Your task to perform on an android device: open the mobile data screen to see how much data has been used Image 0: 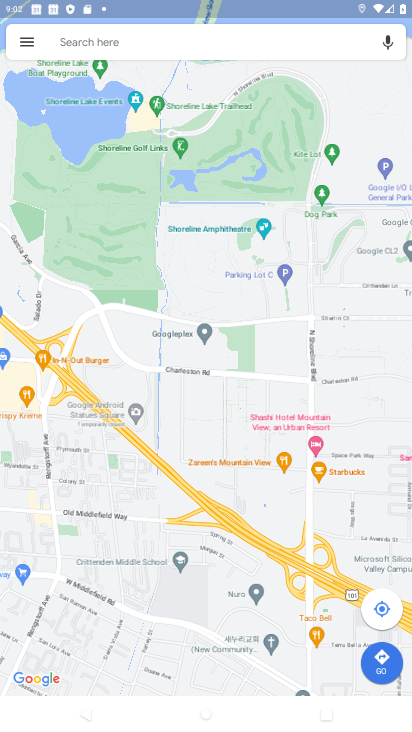
Step 0: press home button
Your task to perform on an android device: open the mobile data screen to see how much data has been used Image 1: 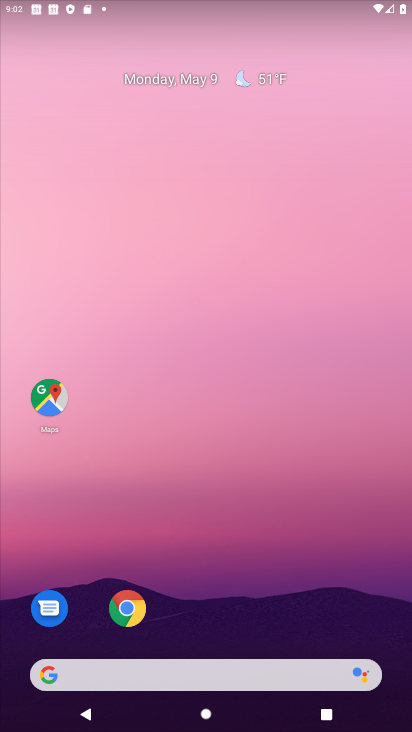
Step 1: drag from (290, 545) to (298, 68)
Your task to perform on an android device: open the mobile data screen to see how much data has been used Image 2: 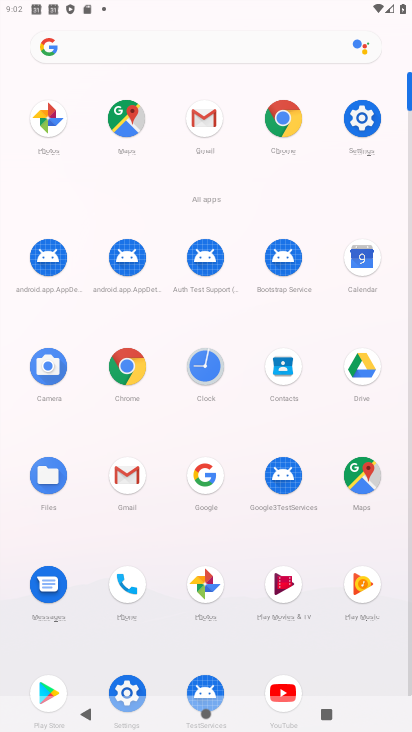
Step 2: click (372, 135)
Your task to perform on an android device: open the mobile data screen to see how much data has been used Image 3: 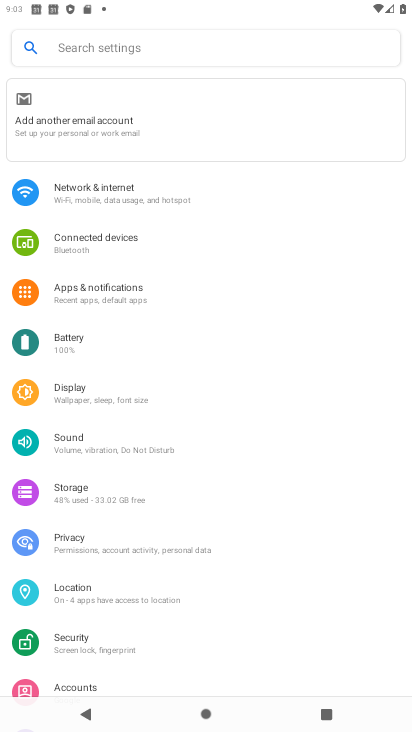
Step 3: click (84, 190)
Your task to perform on an android device: open the mobile data screen to see how much data has been used Image 4: 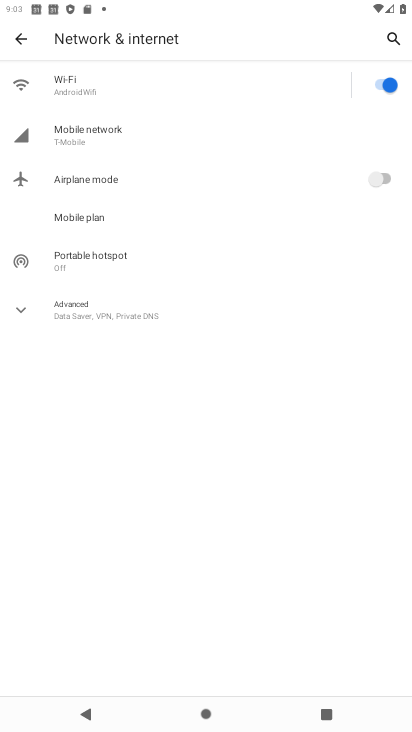
Step 4: click (57, 139)
Your task to perform on an android device: open the mobile data screen to see how much data has been used Image 5: 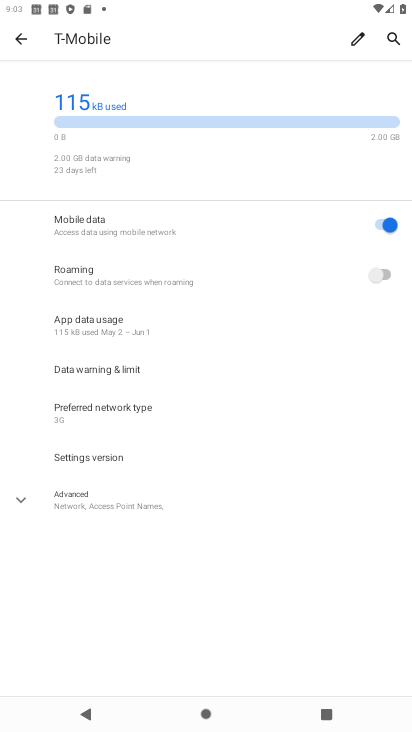
Step 5: task complete